Your task to perform on an android device: Go to internet settings Image 0: 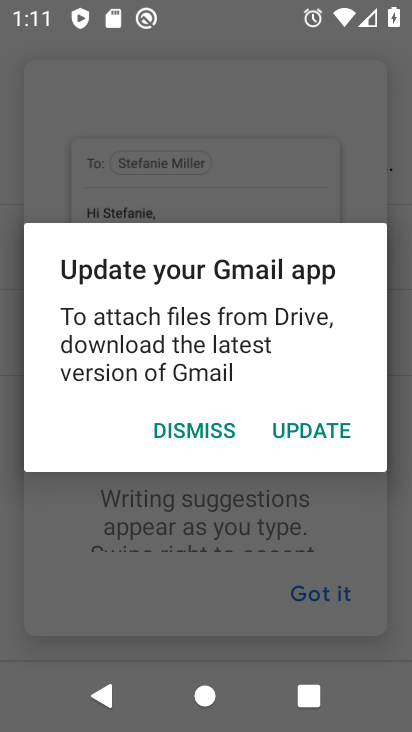
Step 0: press home button
Your task to perform on an android device: Go to internet settings Image 1: 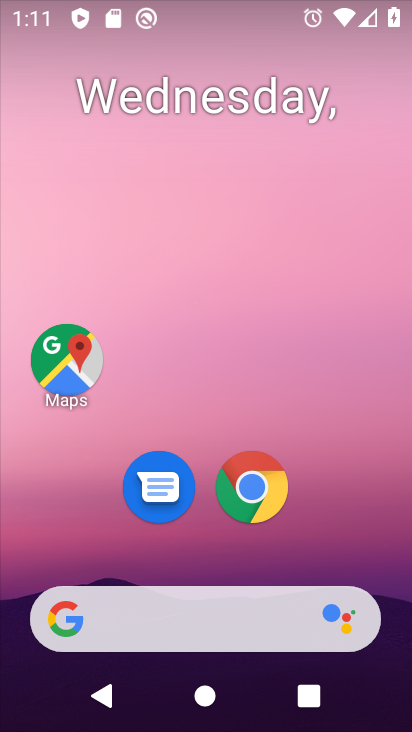
Step 1: drag from (360, 546) to (306, 198)
Your task to perform on an android device: Go to internet settings Image 2: 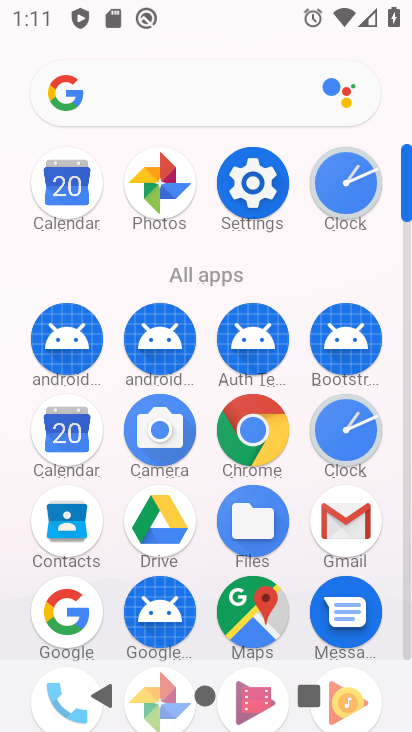
Step 2: click (255, 180)
Your task to perform on an android device: Go to internet settings Image 3: 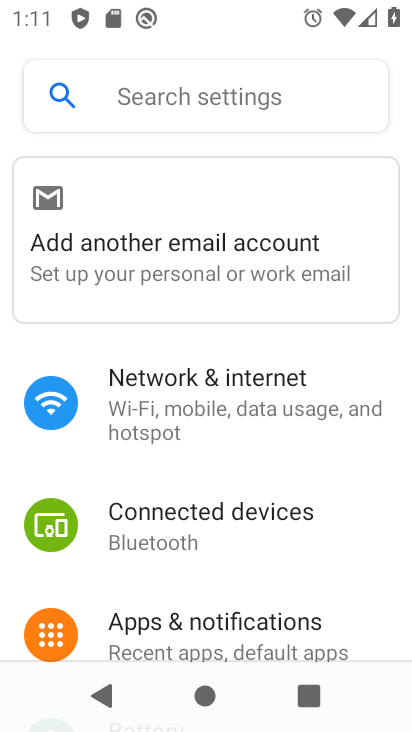
Step 3: click (253, 372)
Your task to perform on an android device: Go to internet settings Image 4: 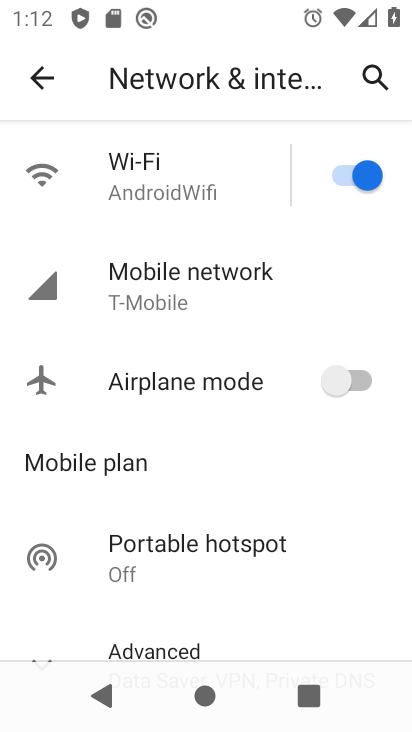
Step 4: task complete